Your task to perform on an android device: What is the recent news? Image 0: 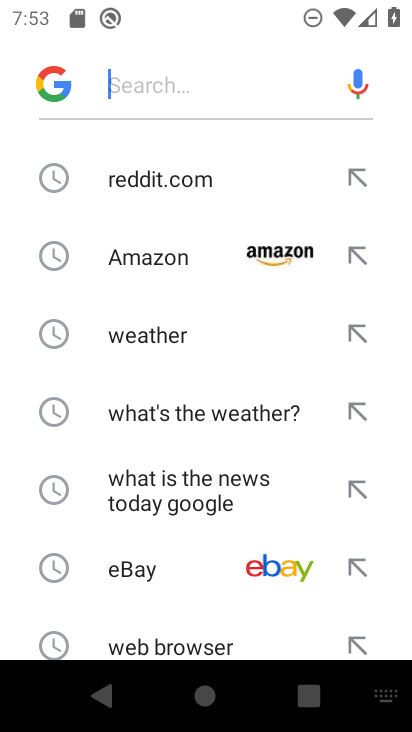
Step 0: press home button
Your task to perform on an android device: What is the recent news? Image 1: 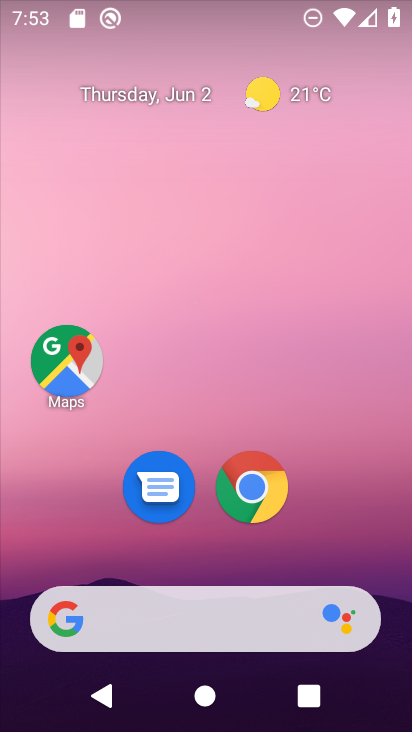
Step 1: drag from (348, 581) to (342, 121)
Your task to perform on an android device: What is the recent news? Image 2: 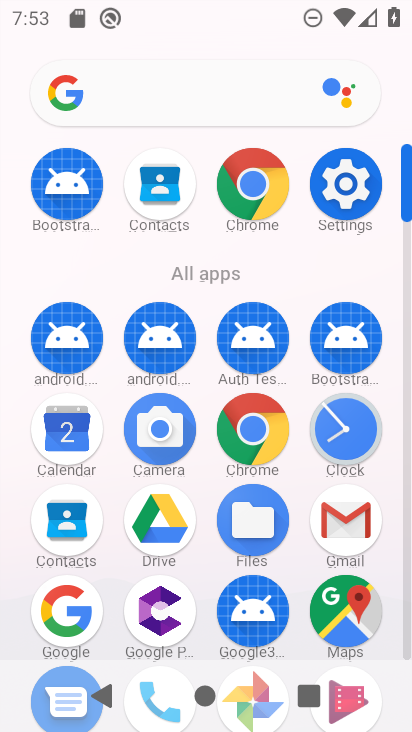
Step 2: click (262, 179)
Your task to perform on an android device: What is the recent news? Image 3: 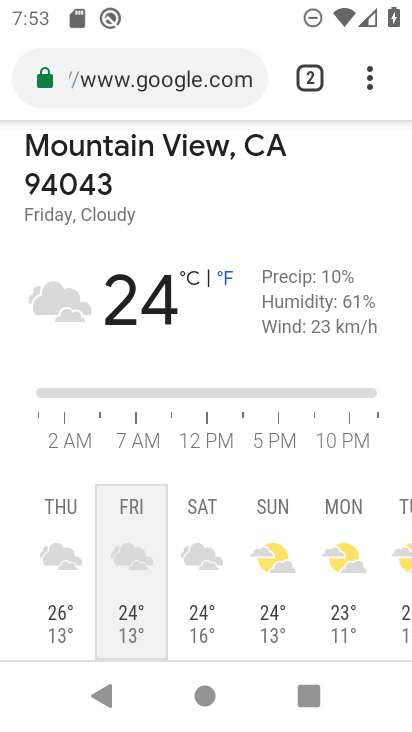
Step 3: click (181, 80)
Your task to perform on an android device: What is the recent news? Image 4: 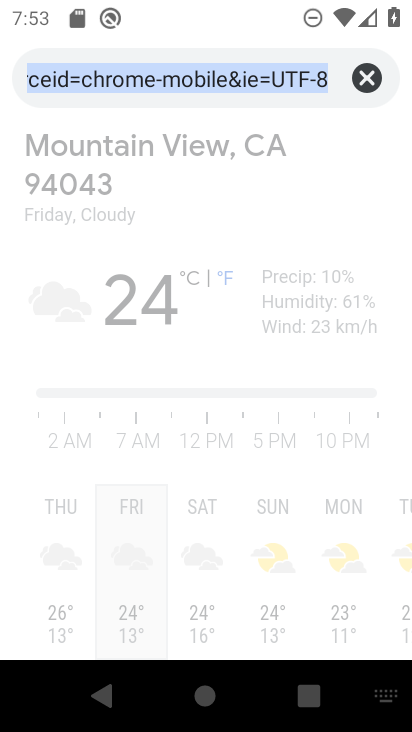
Step 4: type "recent news"
Your task to perform on an android device: What is the recent news? Image 5: 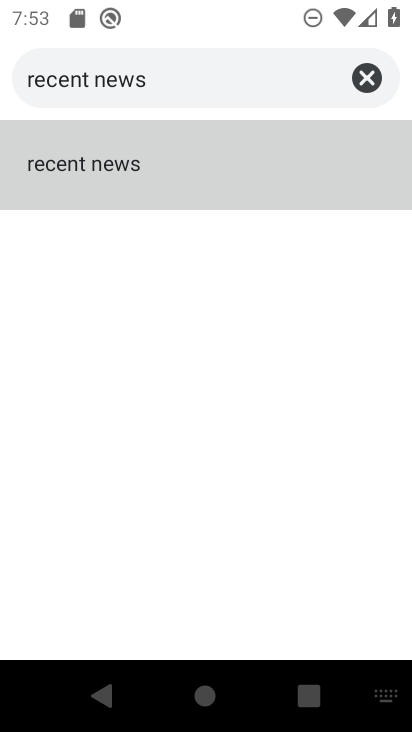
Step 5: click (248, 182)
Your task to perform on an android device: What is the recent news? Image 6: 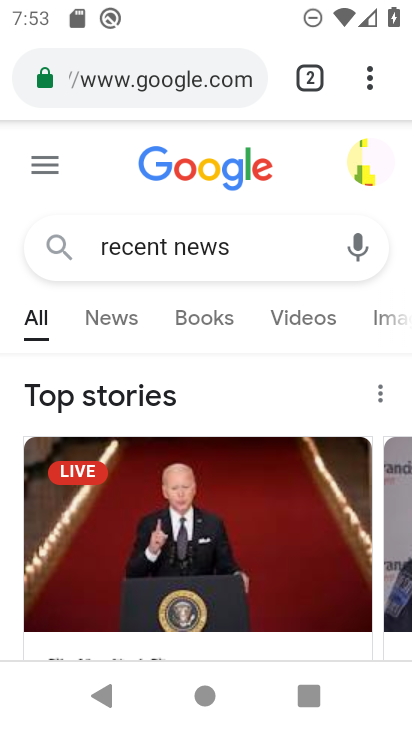
Step 6: task complete